Your task to perform on an android device: set the stopwatch Image 0: 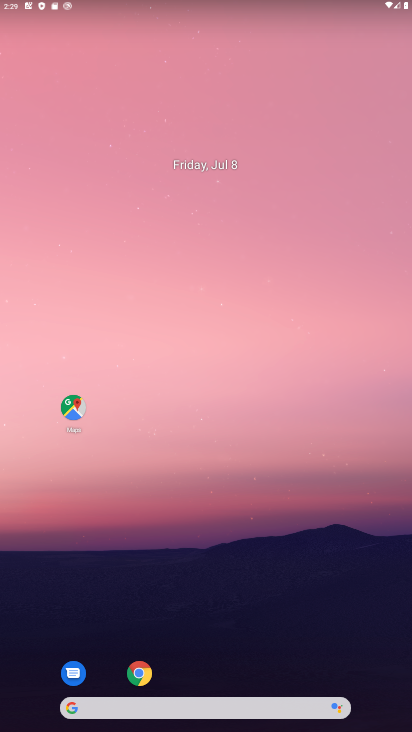
Step 0: drag from (197, 662) to (197, 292)
Your task to perform on an android device: set the stopwatch Image 1: 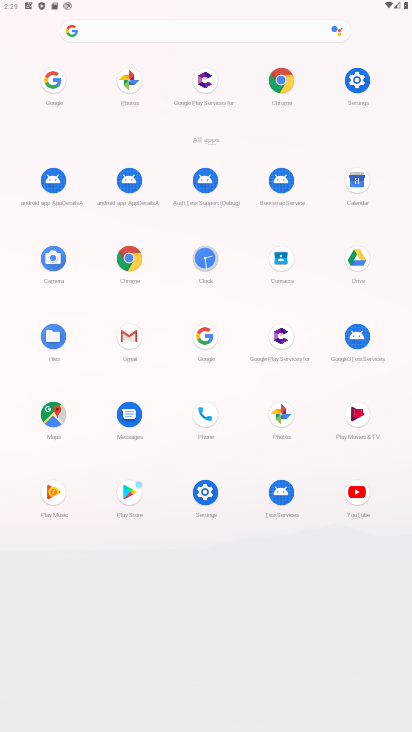
Step 1: click (209, 264)
Your task to perform on an android device: set the stopwatch Image 2: 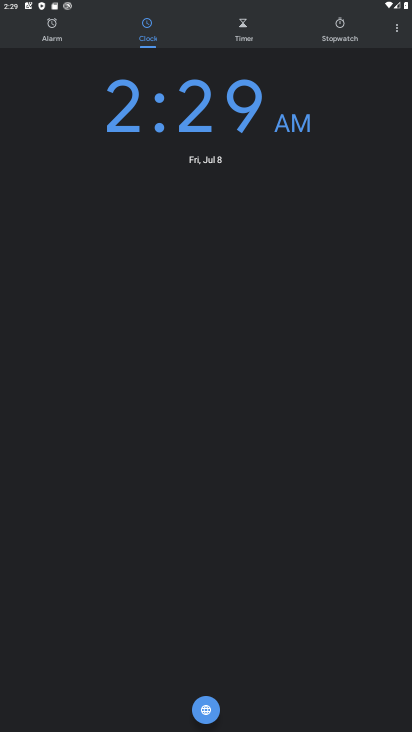
Step 2: click (336, 37)
Your task to perform on an android device: set the stopwatch Image 3: 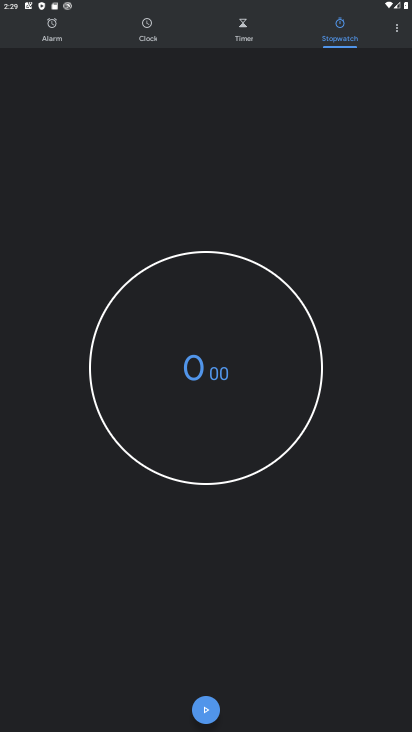
Step 3: click (206, 708)
Your task to perform on an android device: set the stopwatch Image 4: 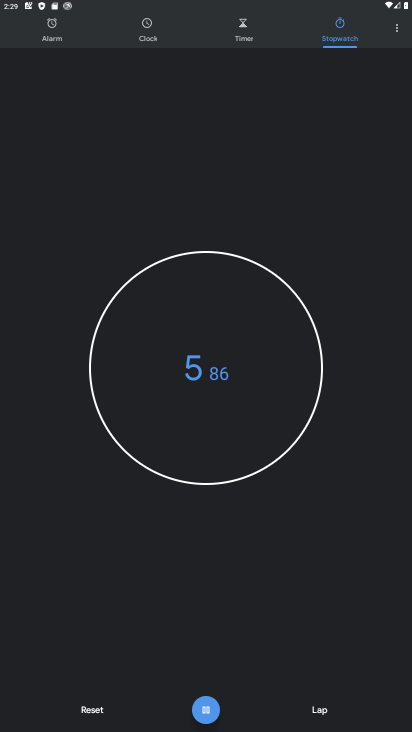
Step 4: click (206, 708)
Your task to perform on an android device: set the stopwatch Image 5: 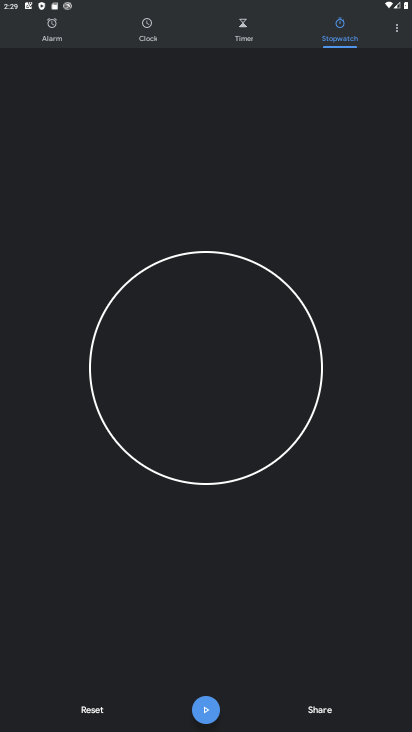
Step 5: task complete